Your task to perform on an android device: Search for usb-a to usb-b on bestbuy, select the first entry, and add it to the cart. Image 0: 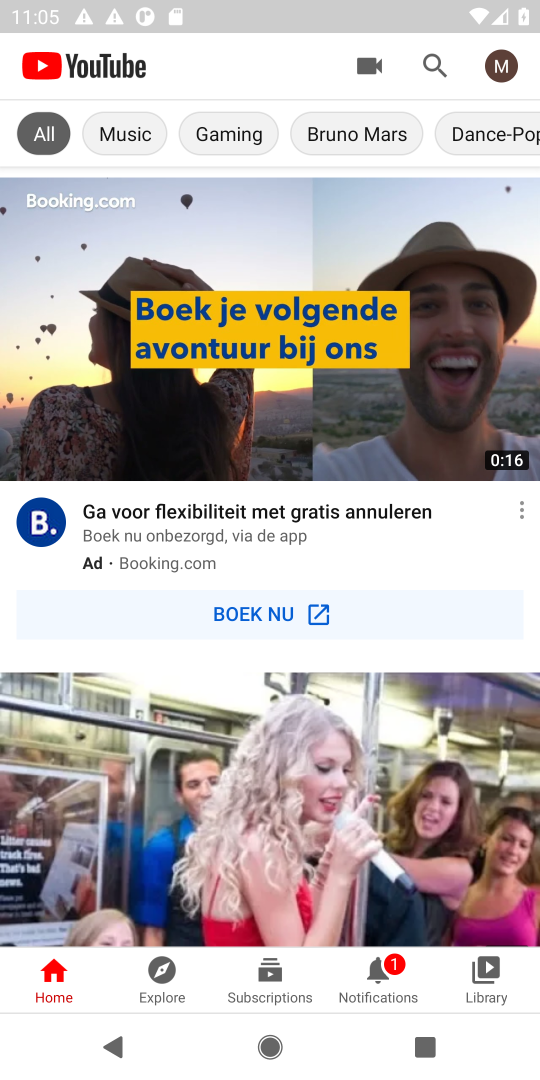
Step 0: press home button
Your task to perform on an android device: Search for usb-a to usb-b on bestbuy, select the first entry, and add it to the cart. Image 1: 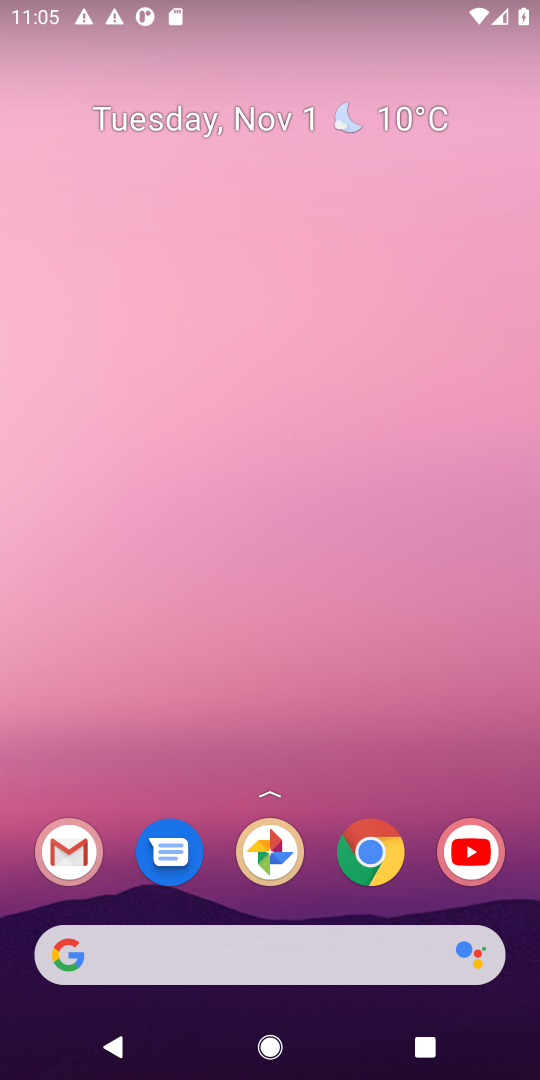
Step 1: click (54, 963)
Your task to perform on an android device: Search for usb-a to usb-b on bestbuy, select the first entry, and add it to the cart. Image 2: 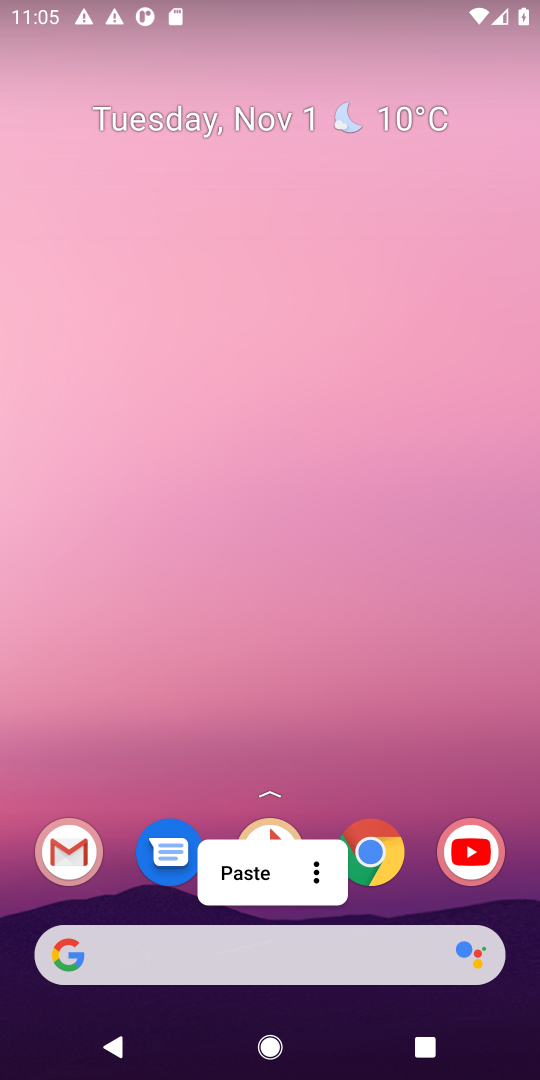
Step 2: click (51, 954)
Your task to perform on an android device: Search for usb-a to usb-b on bestbuy, select the first entry, and add it to the cart. Image 3: 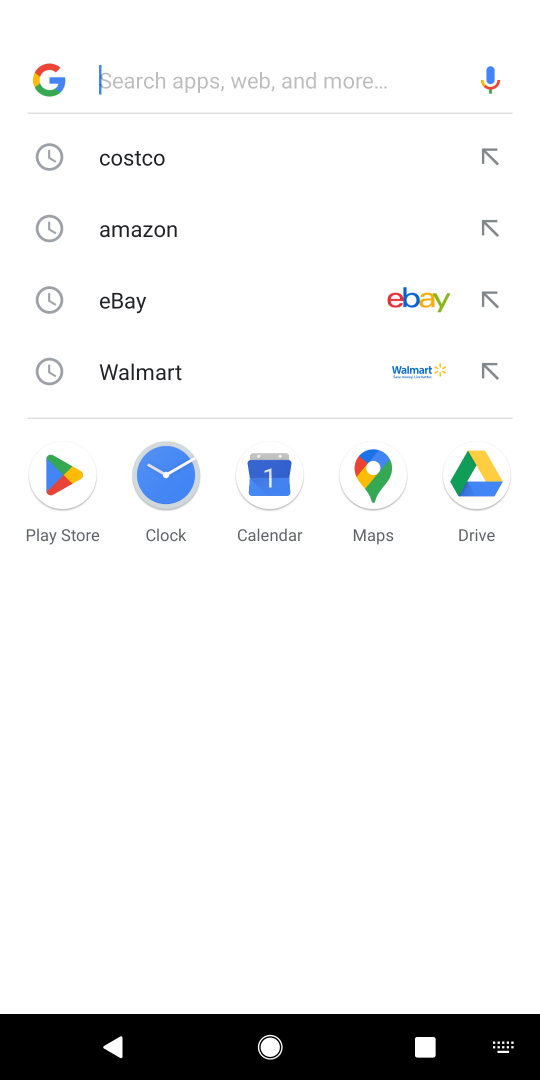
Step 3: type "bestbuy"
Your task to perform on an android device: Search for usb-a to usb-b on bestbuy, select the first entry, and add it to the cart. Image 4: 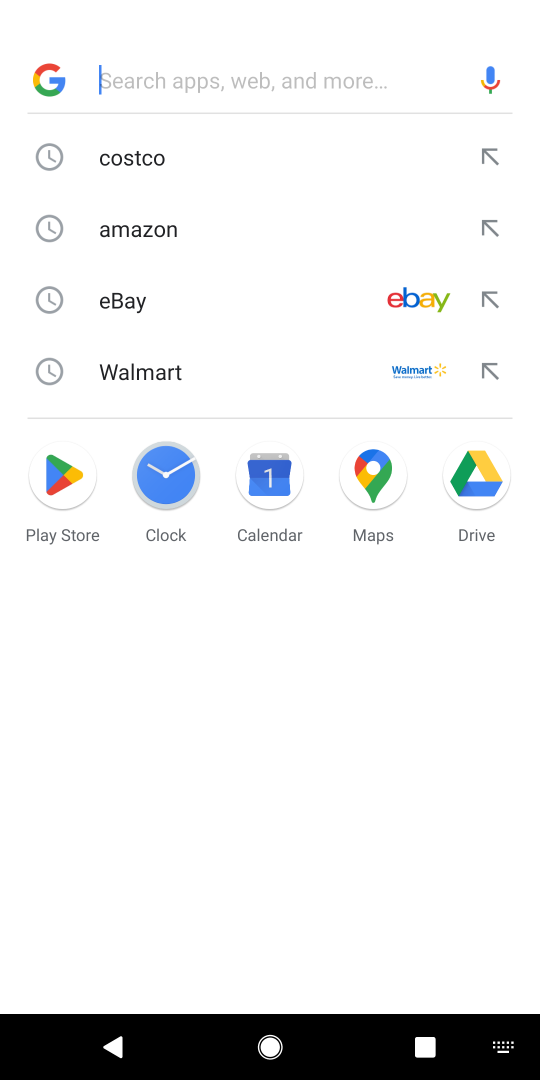
Step 4: click (121, 73)
Your task to perform on an android device: Search for usb-a to usb-b on bestbuy, select the first entry, and add it to the cart. Image 5: 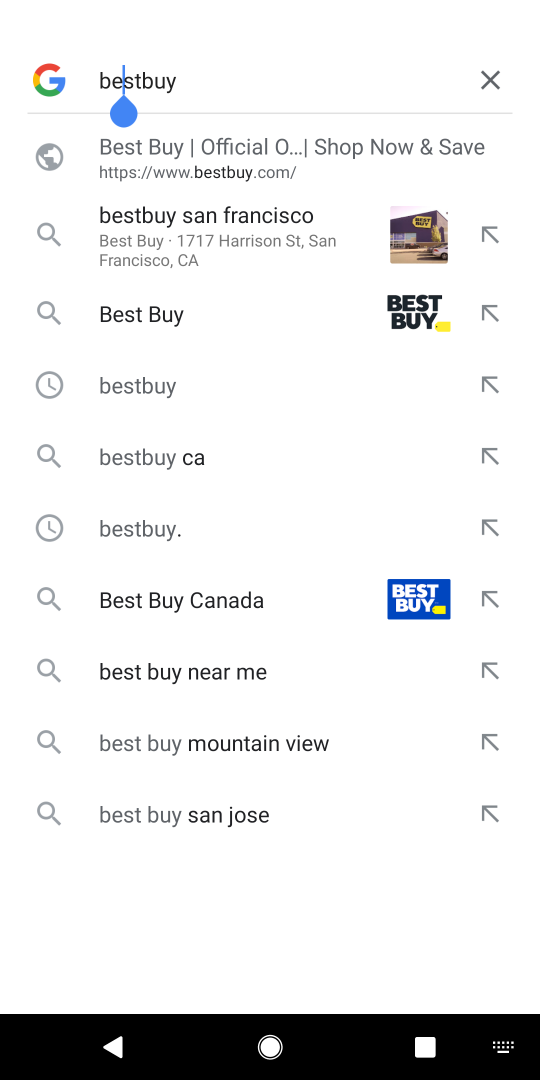
Step 5: click (141, 308)
Your task to perform on an android device: Search for usb-a to usb-b on bestbuy, select the first entry, and add it to the cart. Image 6: 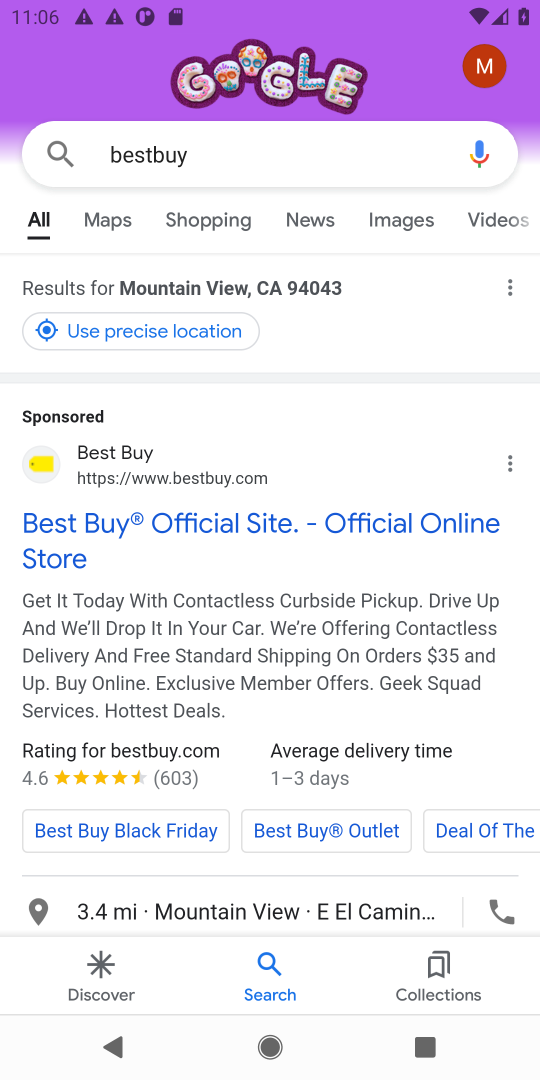
Step 6: drag from (154, 881) to (119, 511)
Your task to perform on an android device: Search for usb-a to usb-b on bestbuy, select the first entry, and add it to the cart. Image 7: 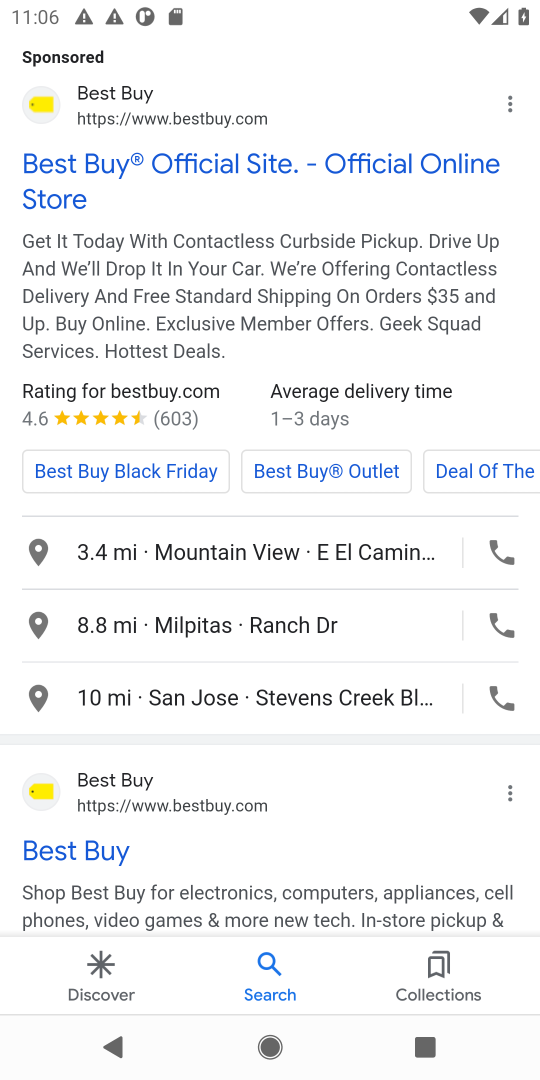
Step 7: click (83, 844)
Your task to perform on an android device: Search for usb-a to usb-b on bestbuy, select the first entry, and add it to the cart. Image 8: 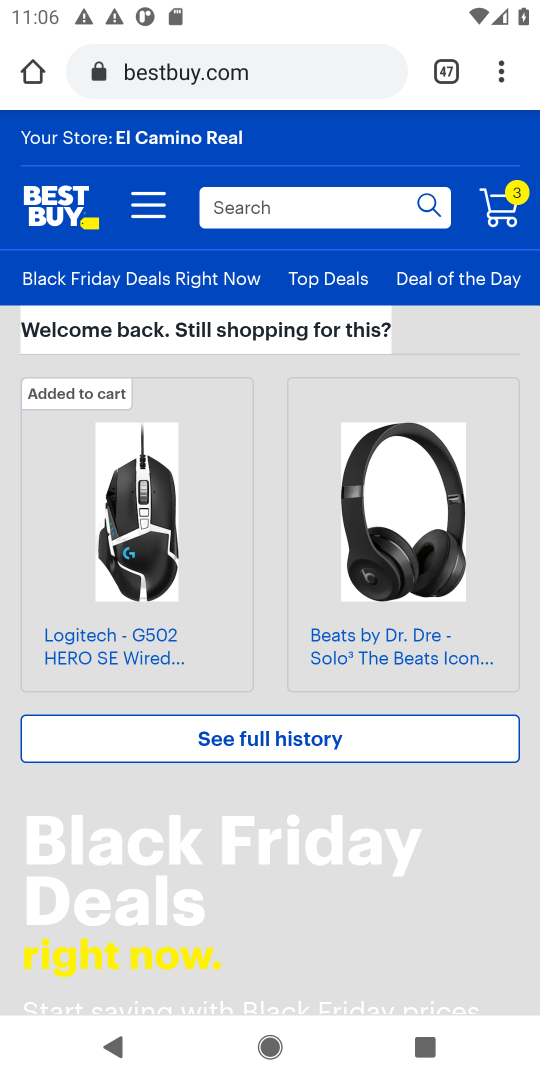
Step 8: click (282, 199)
Your task to perform on an android device: Search for usb-a to usb-b on bestbuy, select the first entry, and add it to the cart. Image 9: 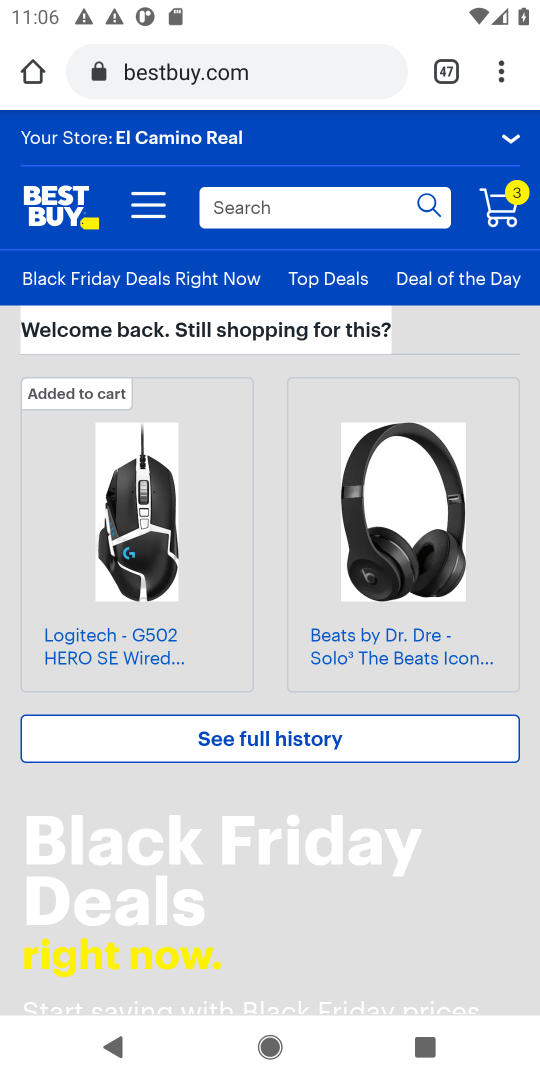
Step 9: click (291, 206)
Your task to perform on an android device: Search for usb-a to usb-b on bestbuy, select the first entry, and add it to the cart. Image 10: 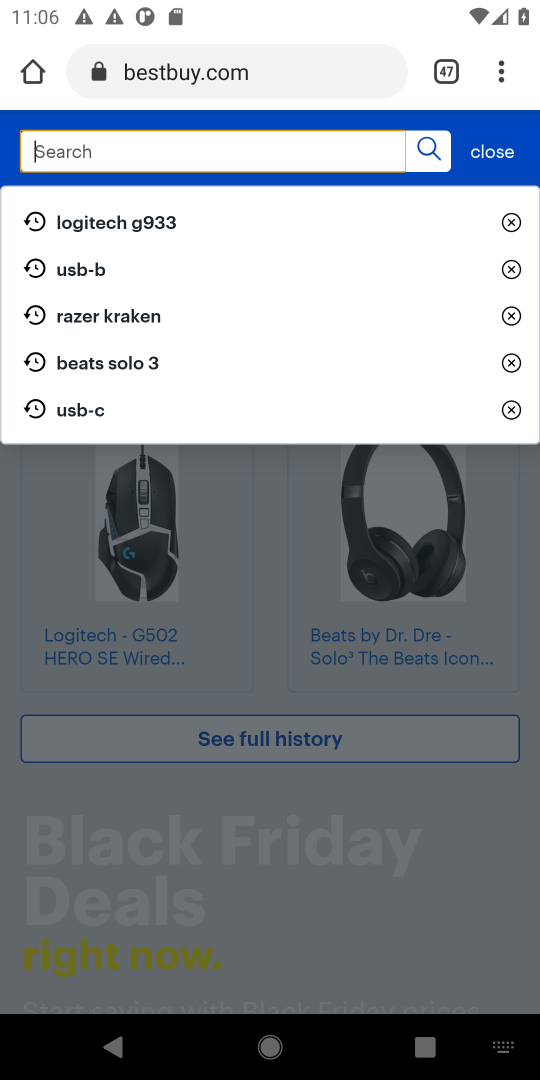
Step 10: type "usb-a to usb-b"
Your task to perform on an android device: Search for usb-a to usb-b on bestbuy, select the first entry, and add it to the cart. Image 11: 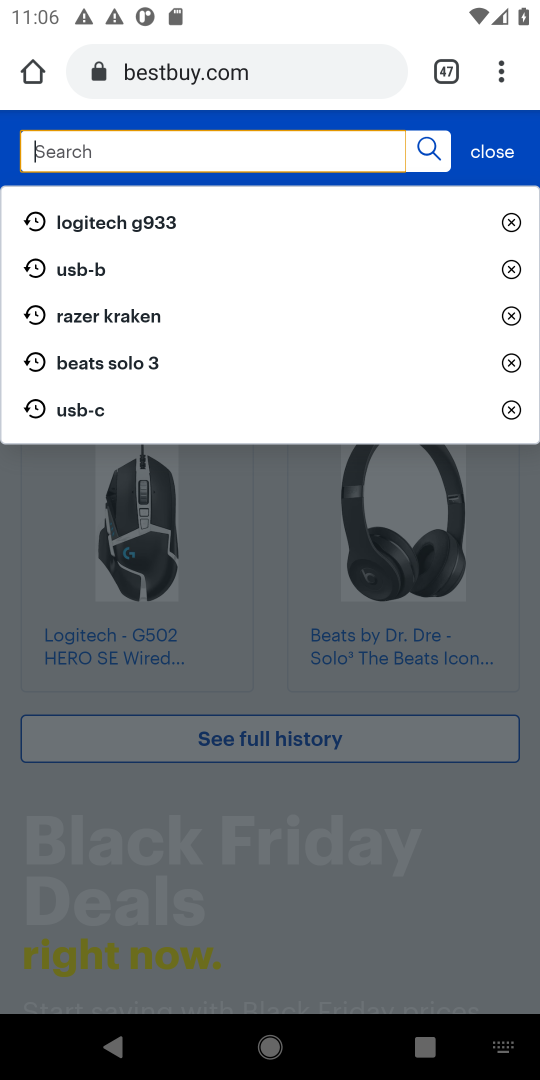
Step 11: click (56, 146)
Your task to perform on an android device: Search for usb-a to usb-b on bestbuy, select the first entry, and add it to the cart. Image 12: 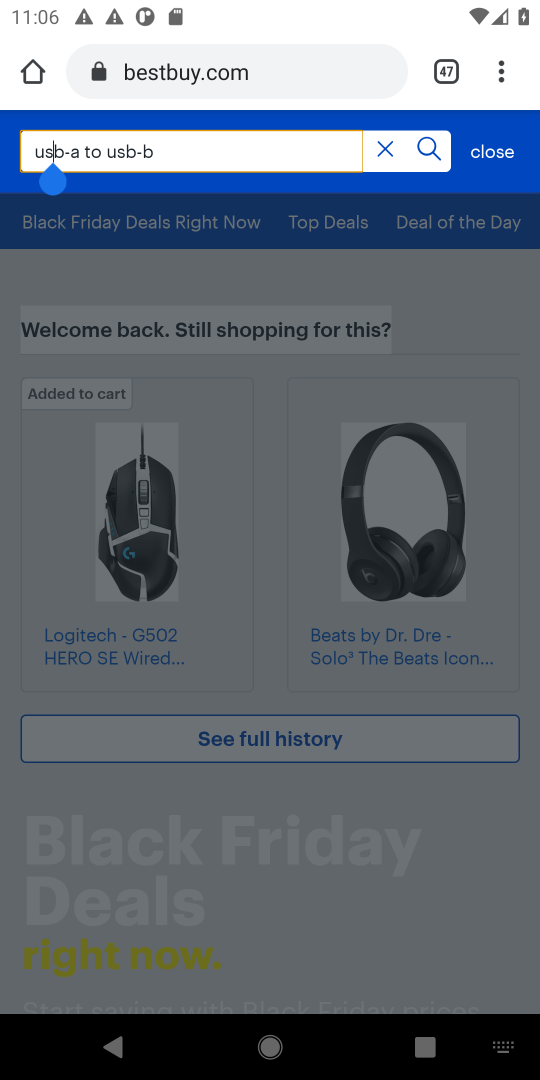
Step 12: press enter
Your task to perform on an android device: Search for usb-a to usb-b on bestbuy, select the first entry, and add it to the cart. Image 13: 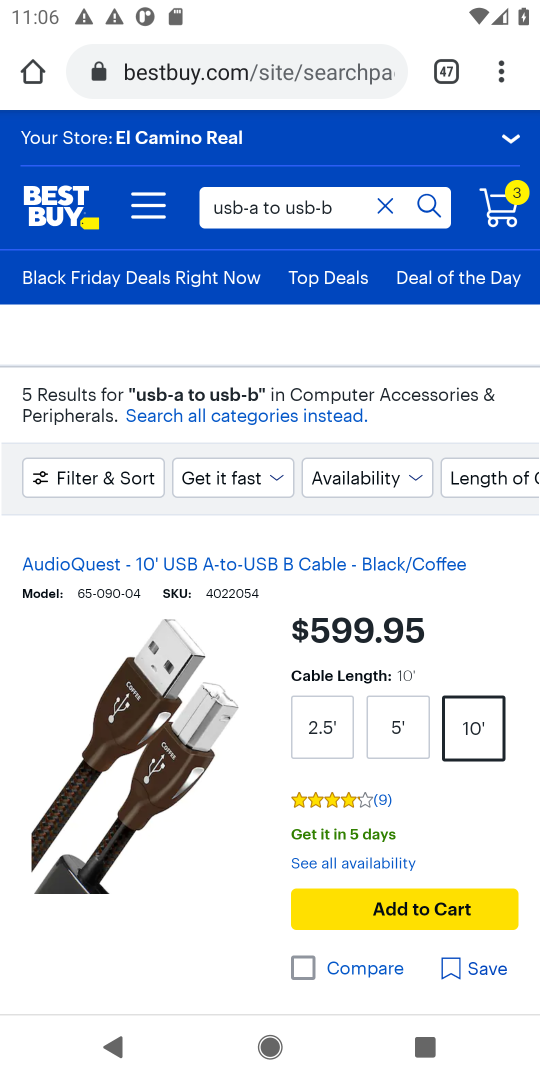
Step 13: drag from (238, 858) to (194, 572)
Your task to perform on an android device: Search for usb-a to usb-b on bestbuy, select the first entry, and add it to the cart. Image 14: 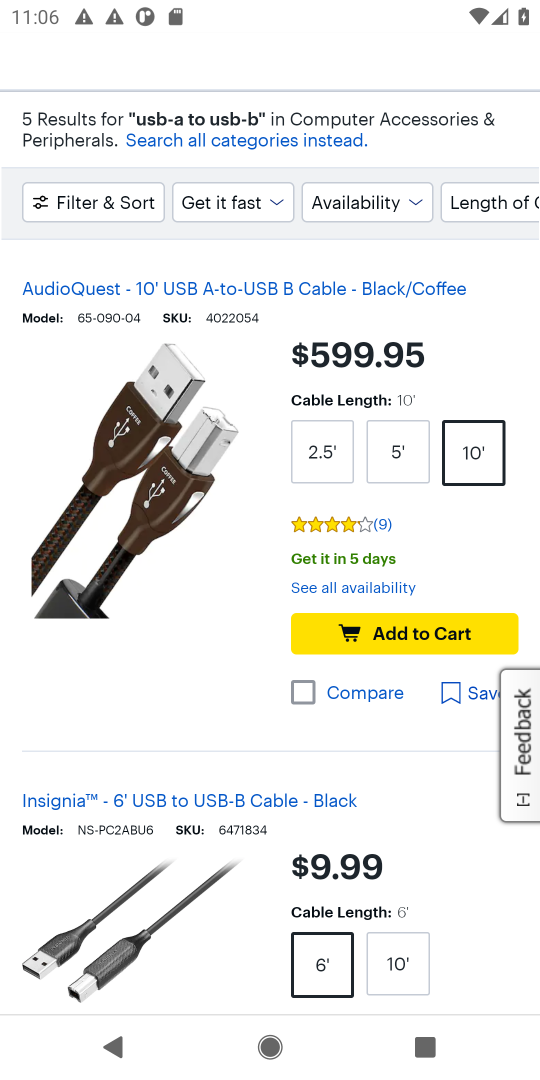
Step 14: click (450, 626)
Your task to perform on an android device: Search for usb-a to usb-b on bestbuy, select the first entry, and add it to the cart. Image 15: 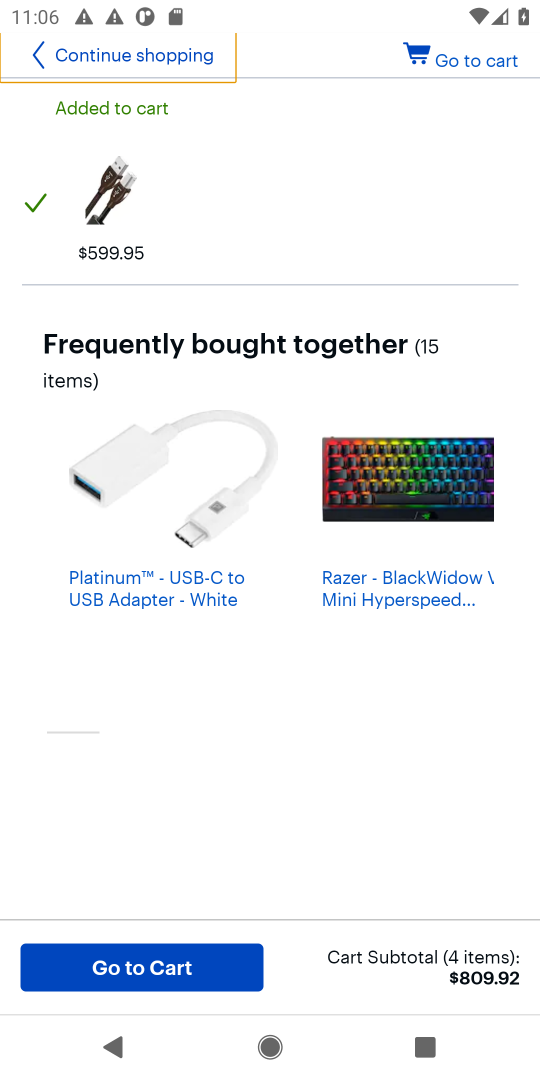
Step 15: click (178, 970)
Your task to perform on an android device: Search for usb-a to usb-b on bestbuy, select the first entry, and add it to the cart. Image 16: 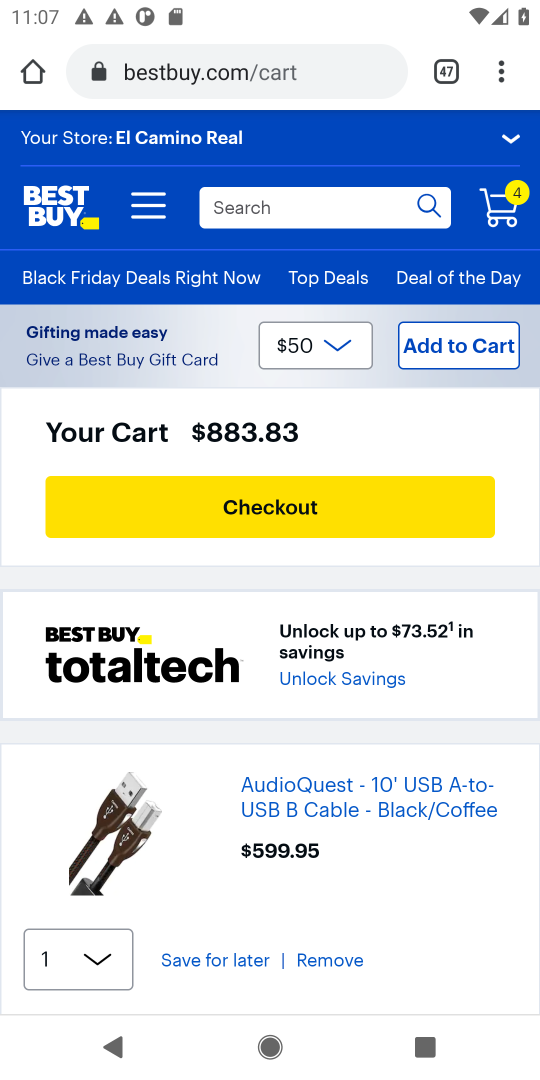
Step 16: task complete